Your task to perform on an android device: clear history in the chrome app Image 0: 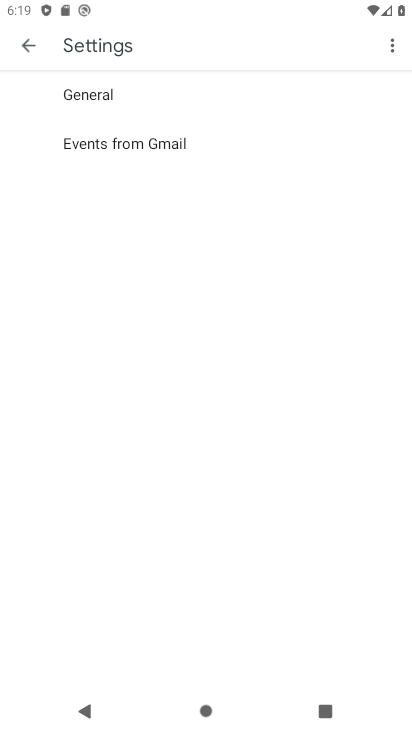
Step 0: press home button
Your task to perform on an android device: clear history in the chrome app Image 1: 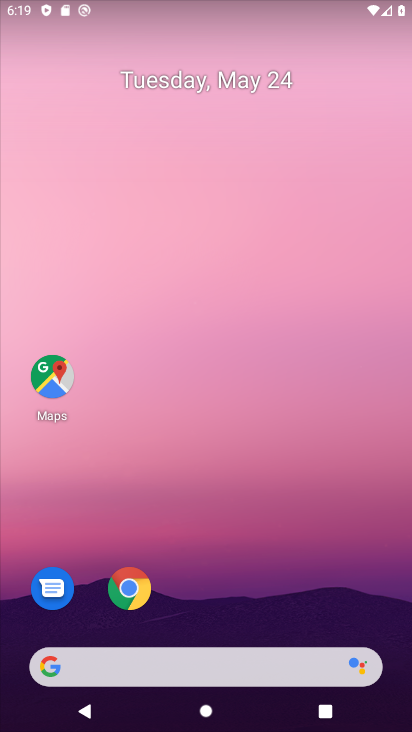
Step 1: drag from (222, 619) to (379, 51)
Your task to perform on an android device: clear history in the chrome app Image 2: 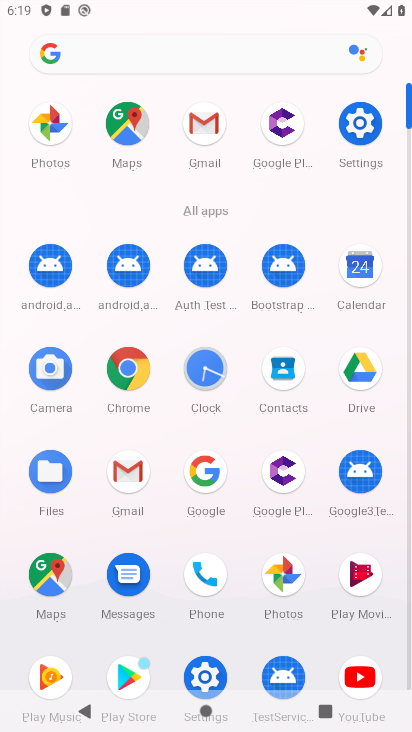
Step 2: click (134, 374)
Your task to perform on an android device: clear history in the chrome app Image 3: 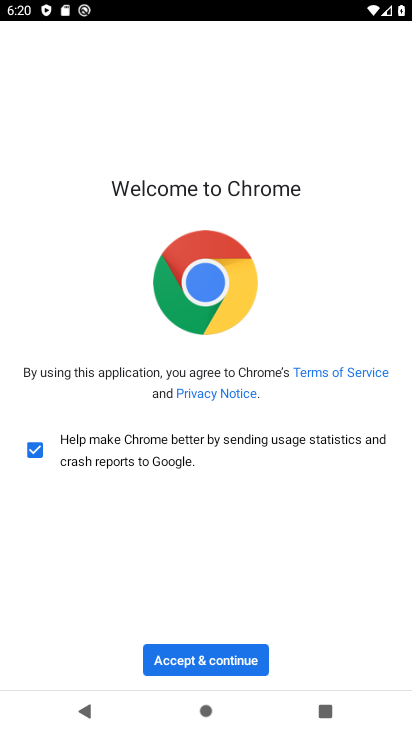
Step 3: click (234, 653)
Your task to perform on an android device: clear history in the chrome app Image 4: 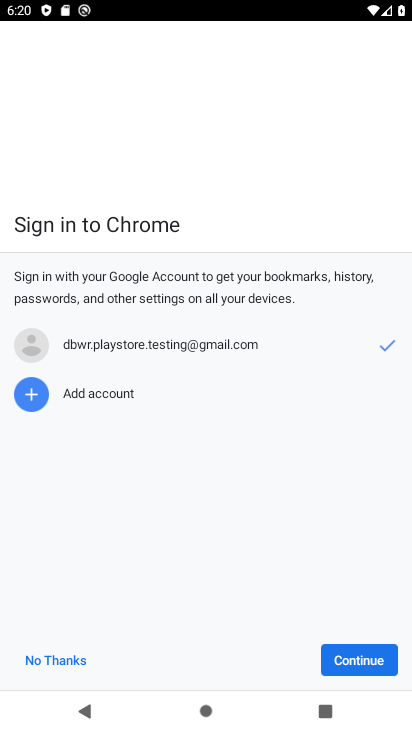
Step 4: click (58, 658)
Your task to perform on an android device: clear history in the chrome app Image 5: 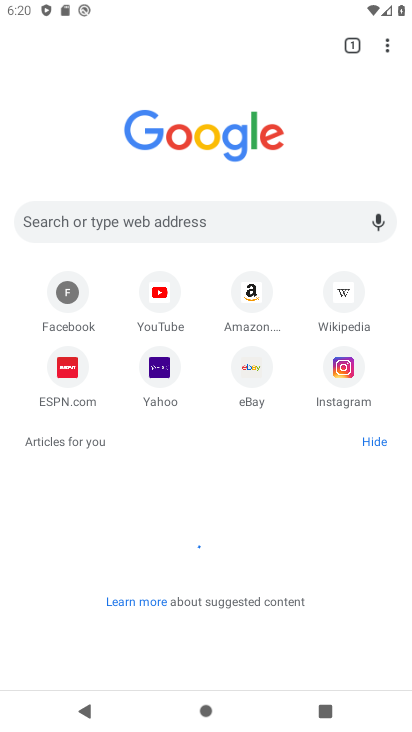
Step 5: task complete